Your task to perform on an android device: open a bookmark in the chrome app Image 0: 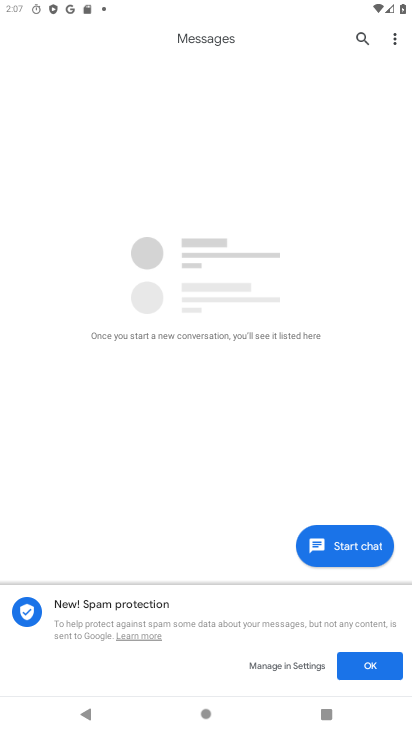
Step 0: drag from (234, 565) to (260, 226)
Your task to perform on an android device: open a bookmark in the chrome app Image 1: 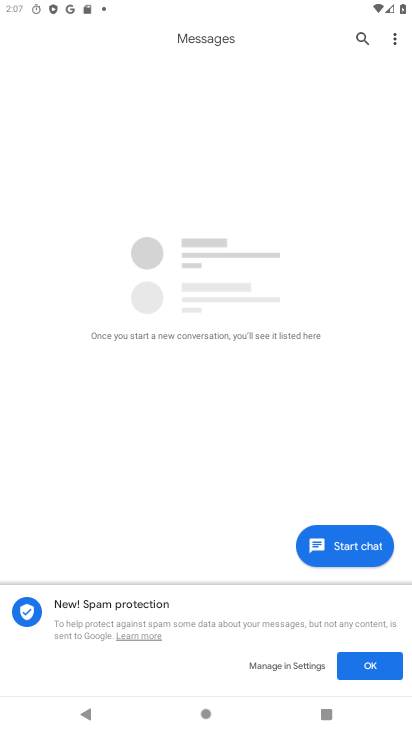
Step 1: press home button
Your task to perform on an android device: open a bookmark in the chrome app Image 2: 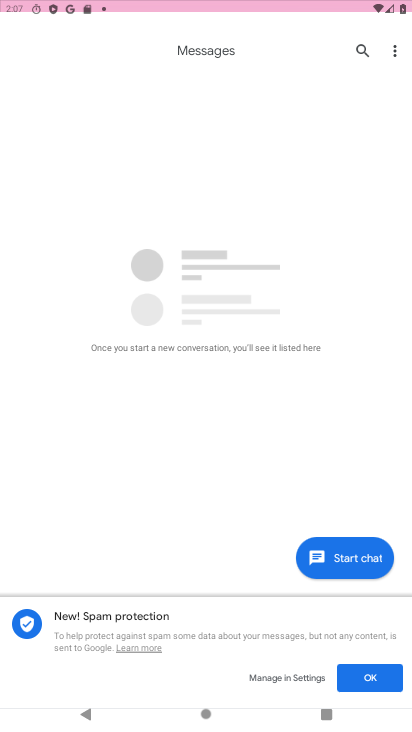
Step 2: drag from (192, 572) to (205, 241)
Your task to perform on an android device: open a bookmark in the chrome app Image 3: 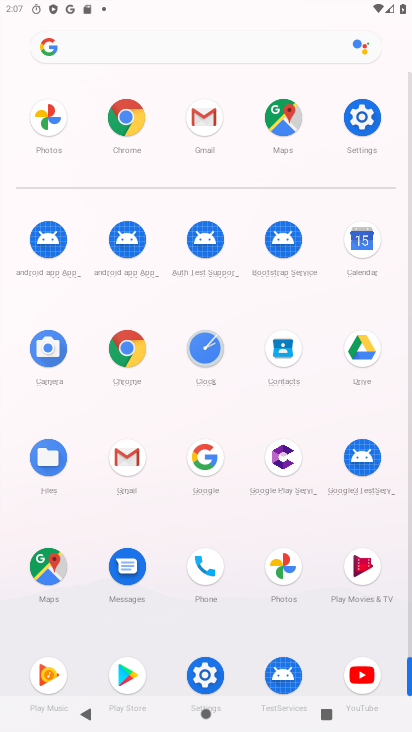
Step 3: click (129, 108)
Your task to perform on an android device: open a bookmark in the chrome app Image 4: 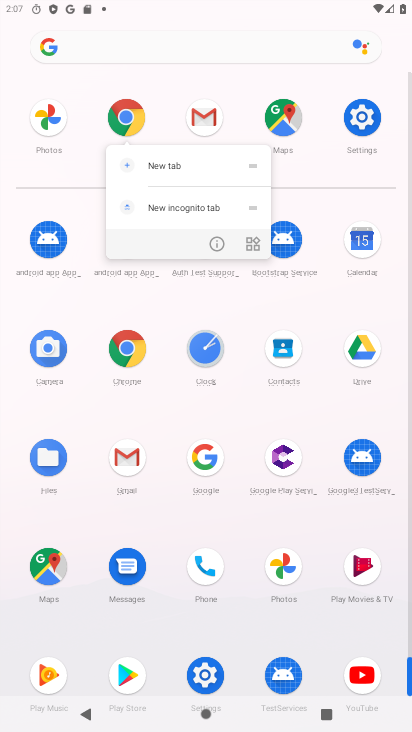
Step 4: click (204, 243)
Your task to perform on an android device: open a bookmark in the chrome app Image 5: 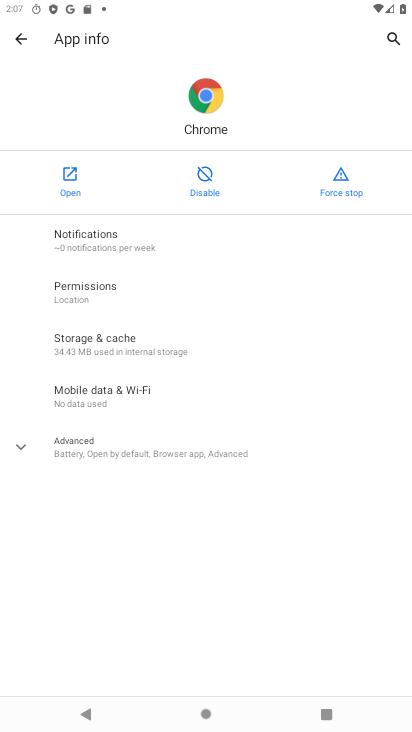
Step 5: click (71, 177)
Your task to perform on an android device: open a bookmark in the chrome app Image 6: 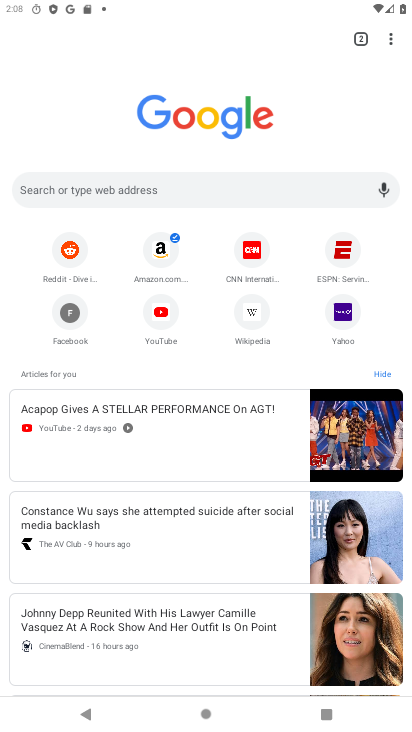
Step 6: drag from (389, 34) to (268, 331)
Your task to perform on an android device: open a bookmark in the chrome app Image 7: 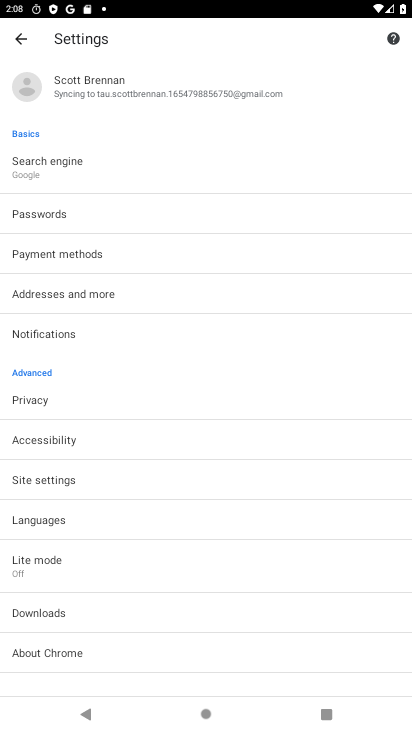
Step 7: drag from (168, 572) to (187, 289)
Your task to perform on an android device: open a bookmark in the chrome app Image 8: 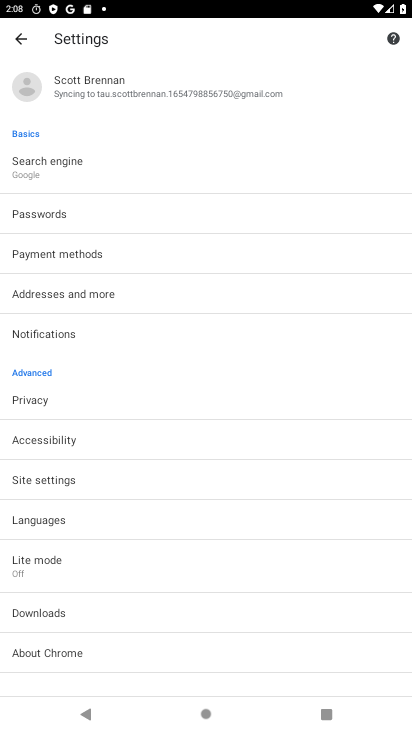
Step 8: click (62, 489)
Your task to perform on an android device: open a bookmark in the chrome app Image 9: 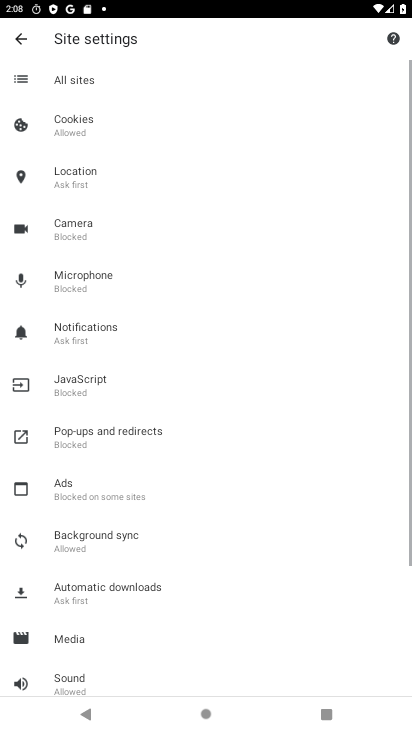
Step 9: drag from (165, 512) to (188, 246)
Your task to perform on an android device: open a bookmark in the chrome app Image 10: 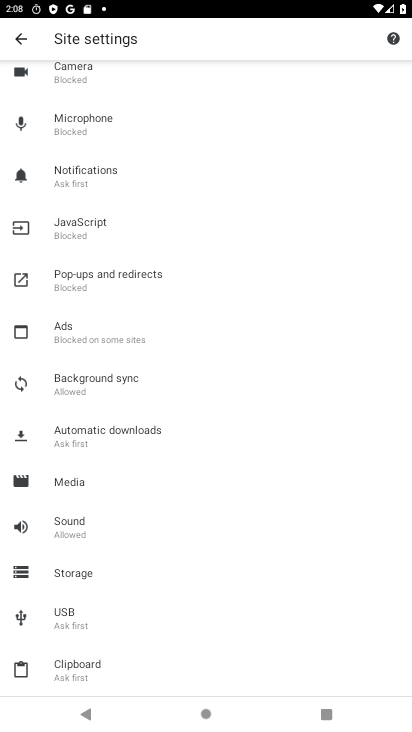
Step 10: click (8, 46)
Your task to perform on an android device: open a bookmark in the chrome app Image 11: 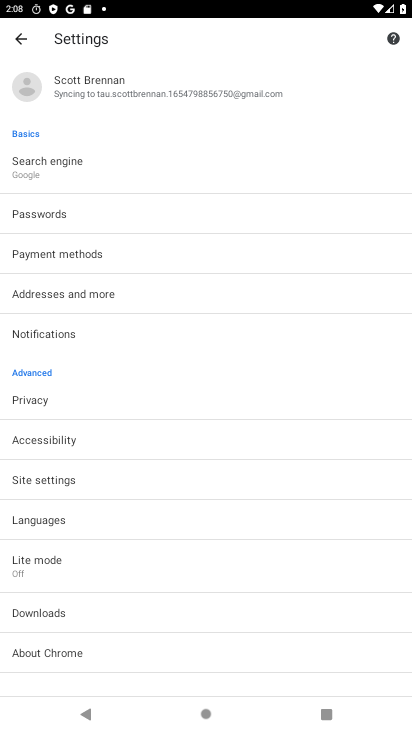
Step 11: click (22, 35)
Your task to perform on an android device: open a bookmark in the chrome app Image 12: 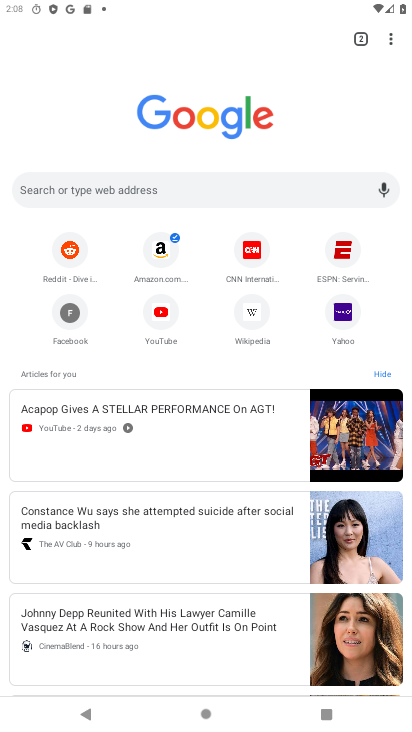
Step 12: task complete